Your task to perform on an android device: Search for sushi restaurants on Maps Image 0: 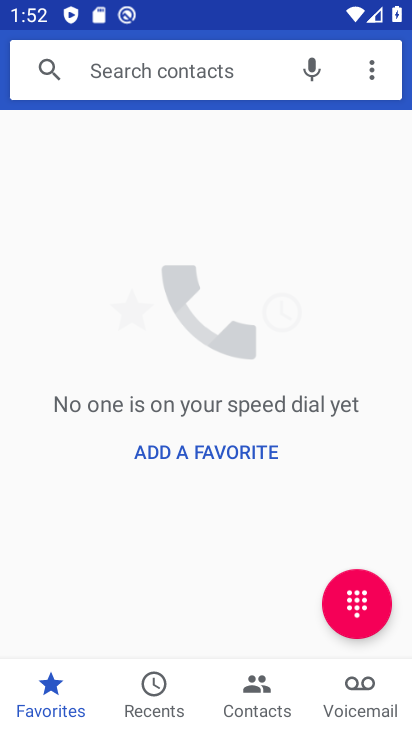
Step 0: press home button
Your task to perform on an android device: Search for sushi restaurants on Maps Image 1: 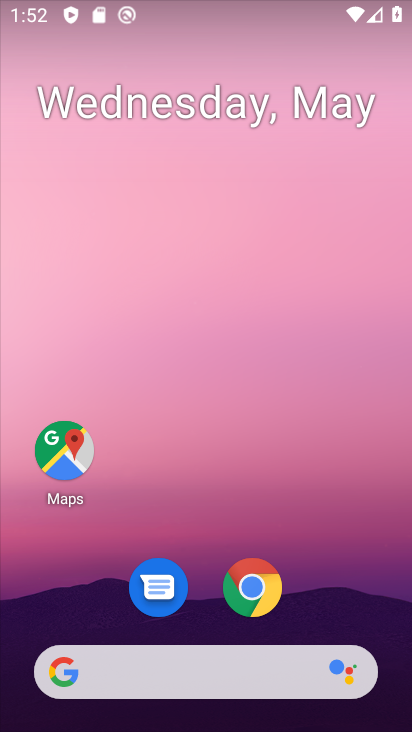
Step 1: click (64, 468)
Your task to perform on an android device: Search for sushi restaurants on Maps Image 2: 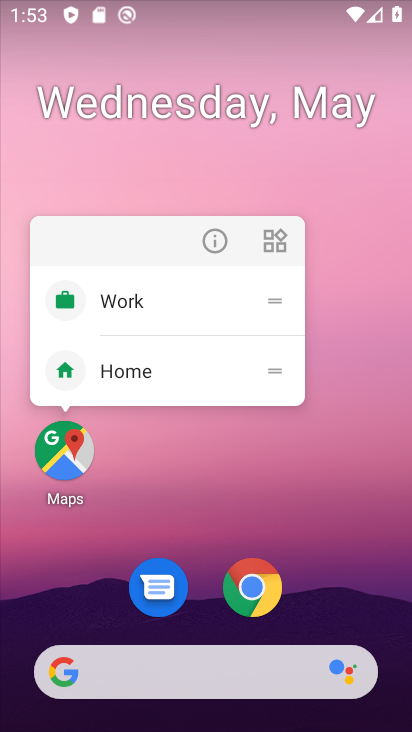
Step 2: click (79, 456)
Your task to perform on an android device: Search for sushi restaurants on Maps Image 3: 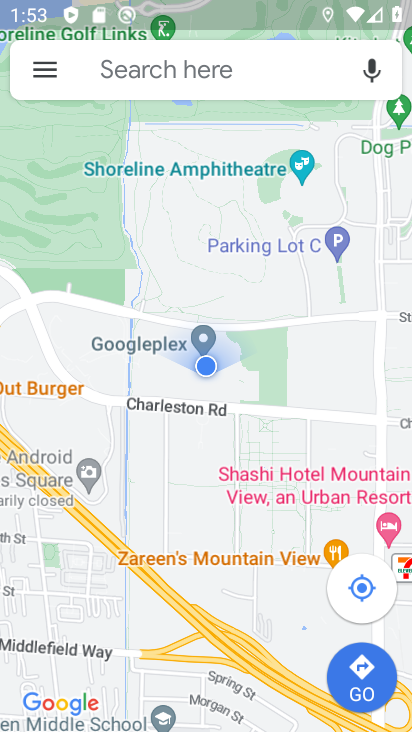
Step 3: click (201, 68)
Your task to perform on an android device: Search for sushi restaurants on Maps Image 4: 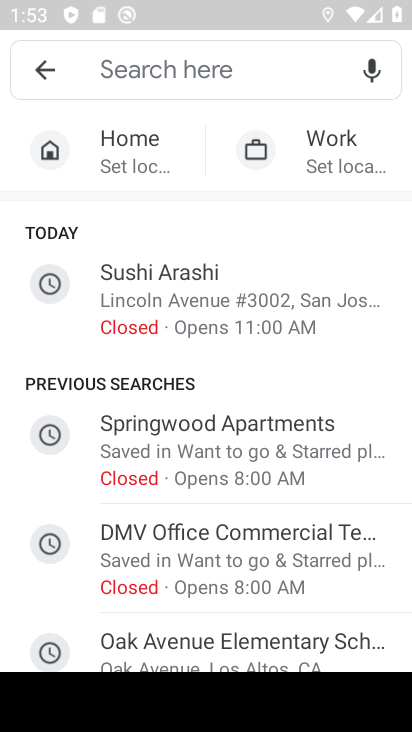
Step 4: type "sushi restaurants"
Your task to perform on an android device: Search for sushi restaurants on Maps Image 5: 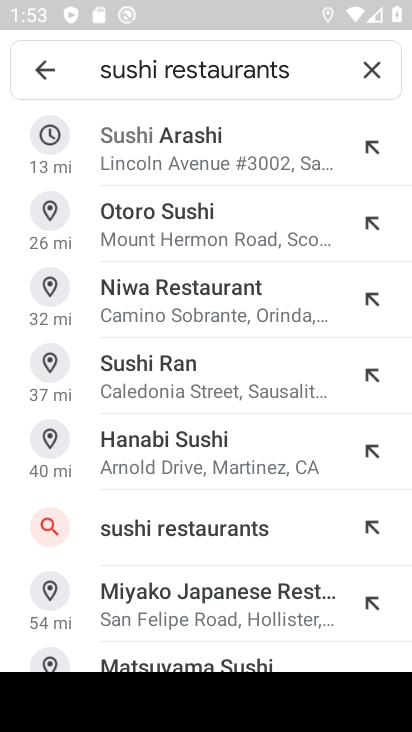
Step 5: click (298, 73)
Your task to perform on an android device: Search for sushi restaurants on Maps Image 6: 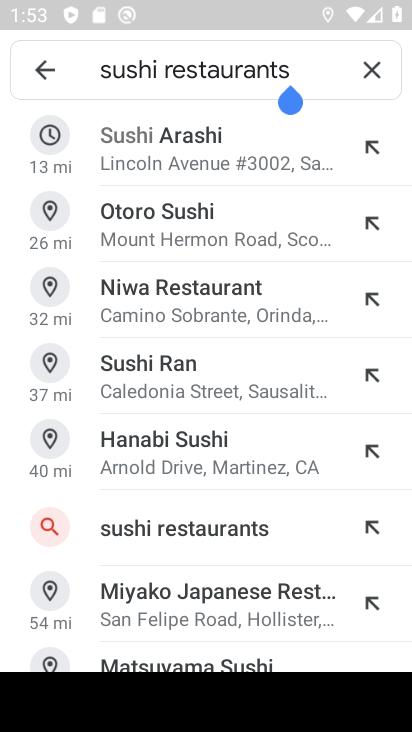
Step 6: click (242, 523)
Your task to perform on an android device: Search for sushi restaurants on Maps Image 7: 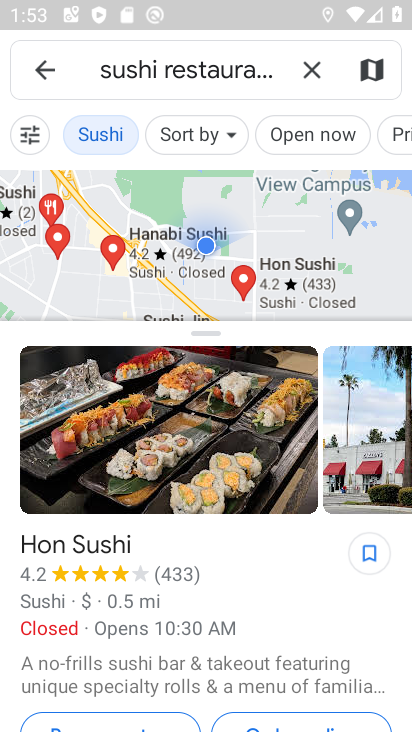
Step 7: task complete